Your task to perform on an android device: Open Amazon Image 0: 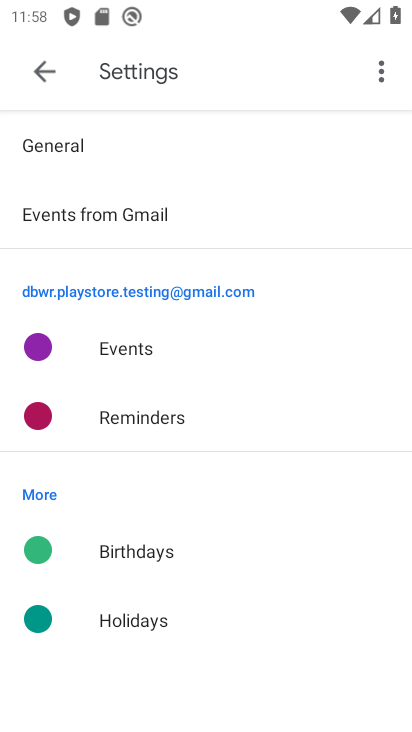
Step 0: click (266, 579)
Your task to perform on an android device: Open Amazon Image 1: 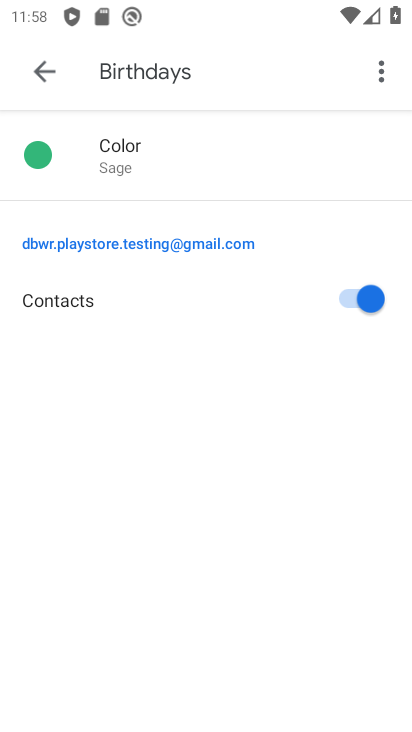
Step 1: press home button
Your task to perform on an android device: Open Amazon Image 2: 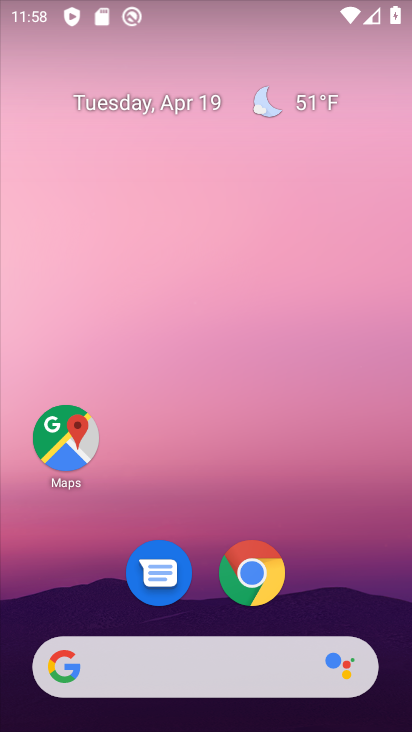
Step 2: click (273, 582)
Your task to perform on an android device: Open Amazon Image 3: 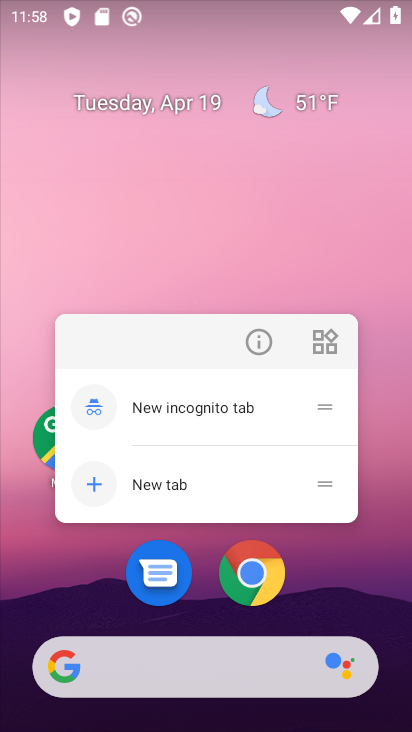
Step 3: click (256, 581)
Your task to perform on an android device: Open Amazon Image 4: 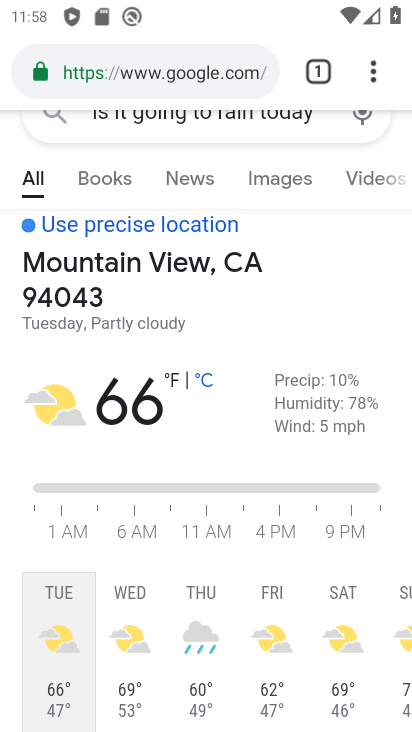
Step 4: click (322, 69)
Your task to perform on an android device: Open Amazon Image 5: 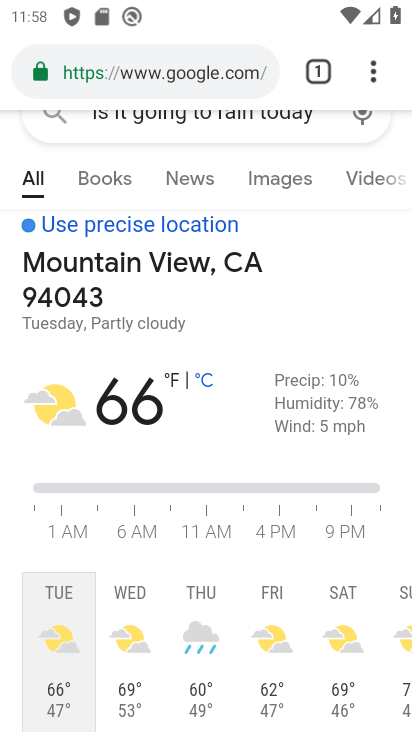
Step 5: click (193, 64)
Your task to perform on an android device: Open Amazon Image 6: 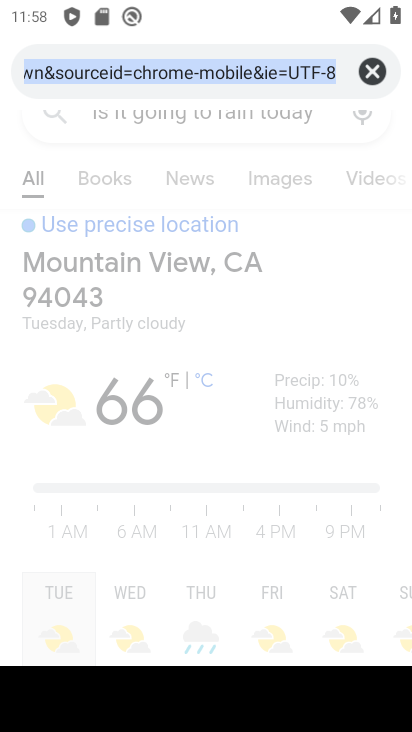
Step 6: type "Amazon"
Your task to perform on an android device: Open Amazon Image 7: 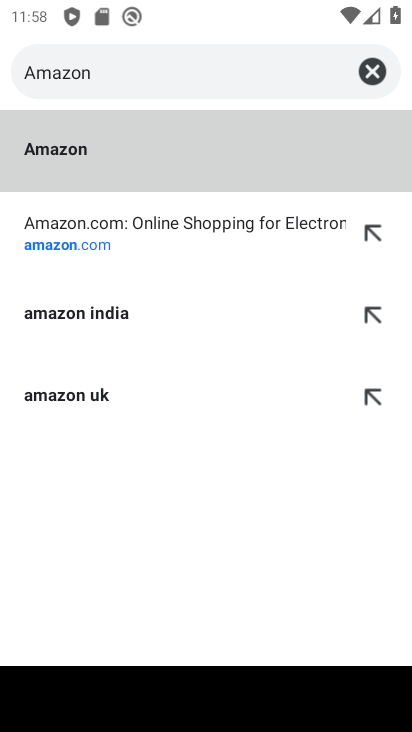
Step 7: click (73, 236)
Your task to perform on an android device: Open Amazon Image 8: 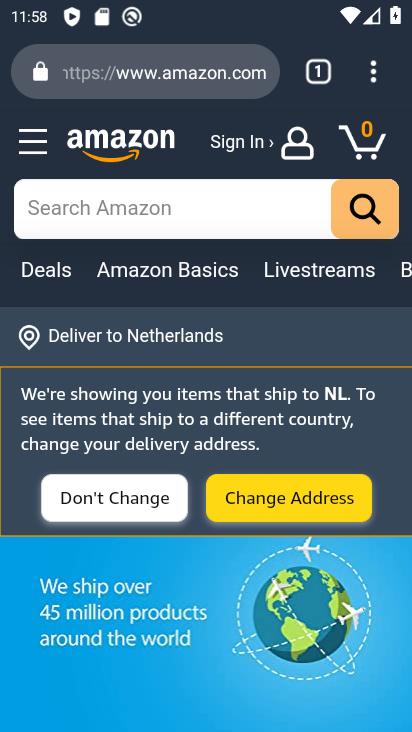
Step 8: task complete